Your task to perform on an android device: open sync settings in chrome Image 0: 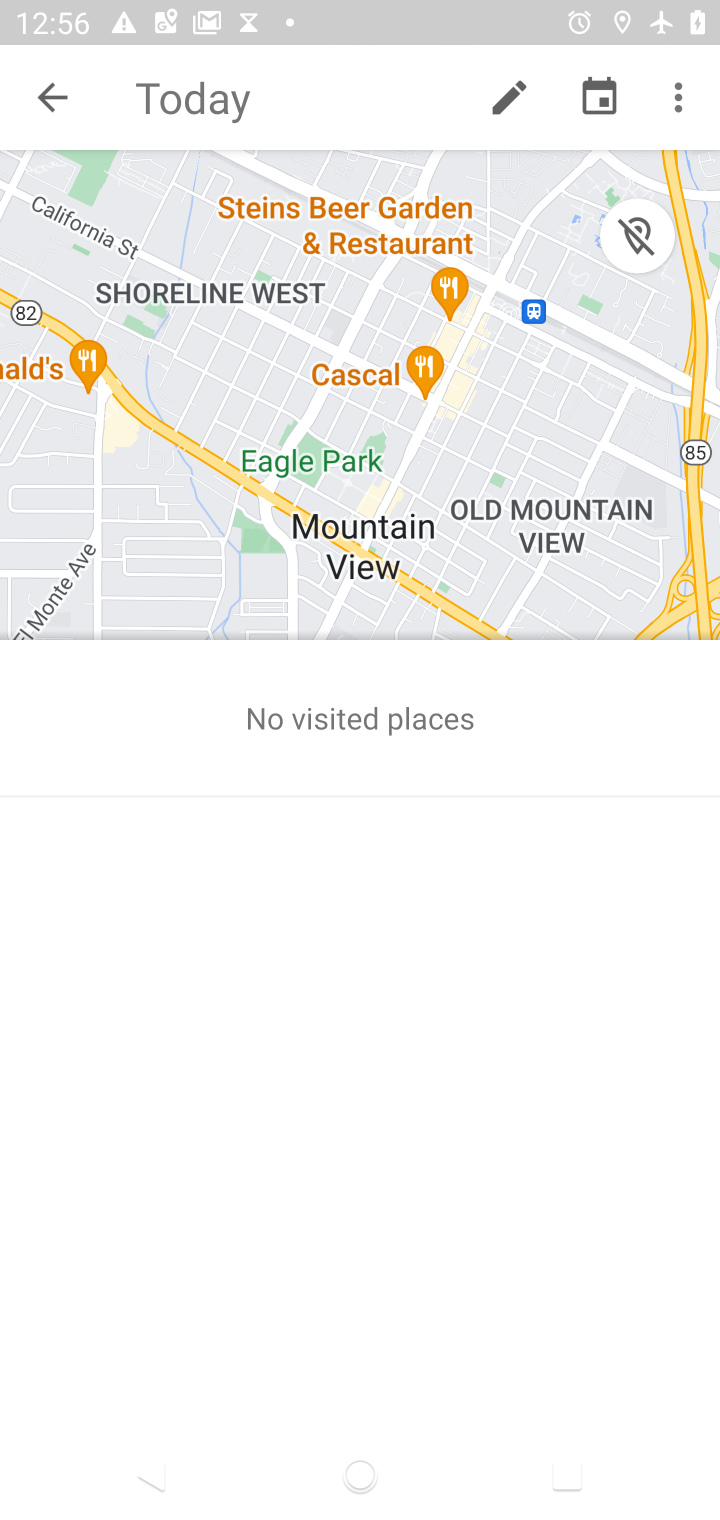
Step 0: press home button
Your task to perform on an android device: open sync settings in chrome Image 1: 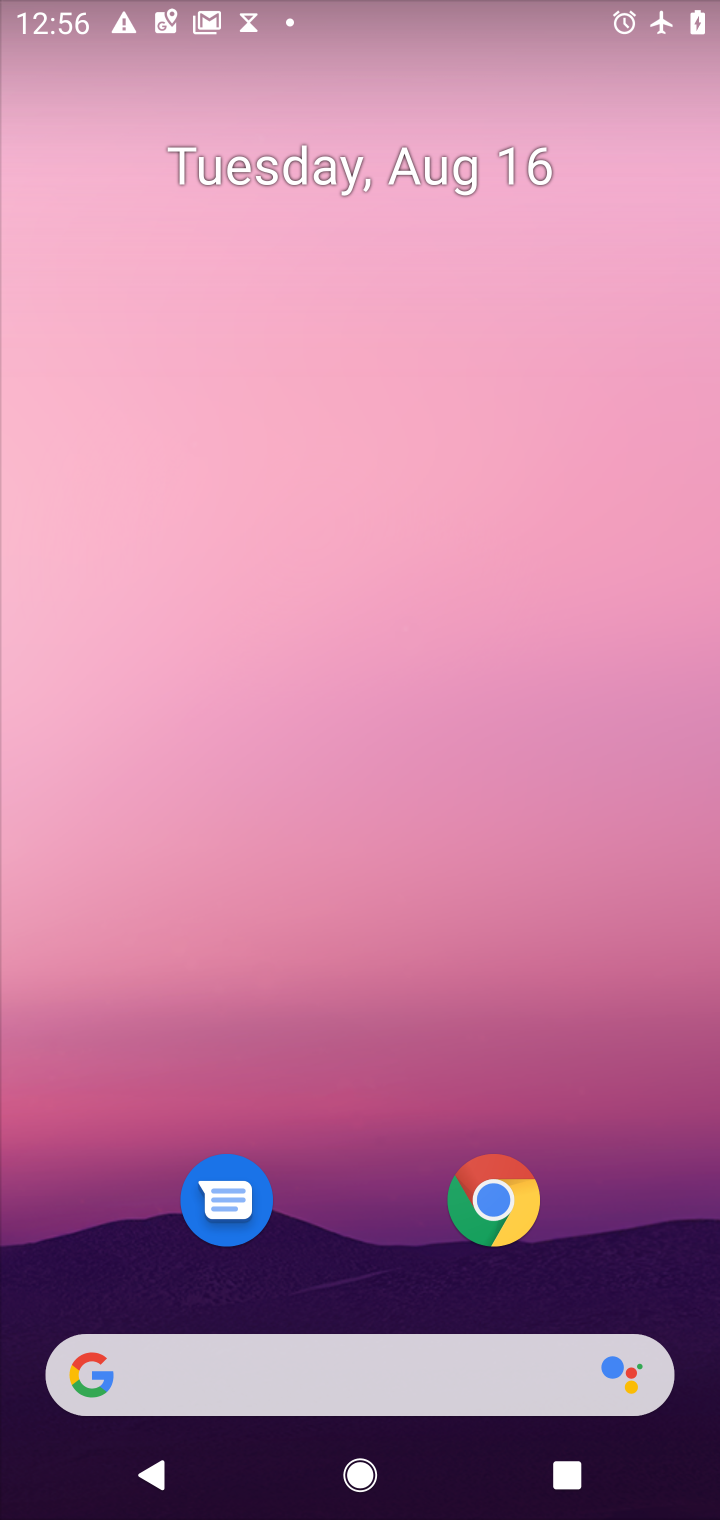
Step 1: click (471, 1216)
Your task to perform on an android device: open sync settings in chrome Image 2: 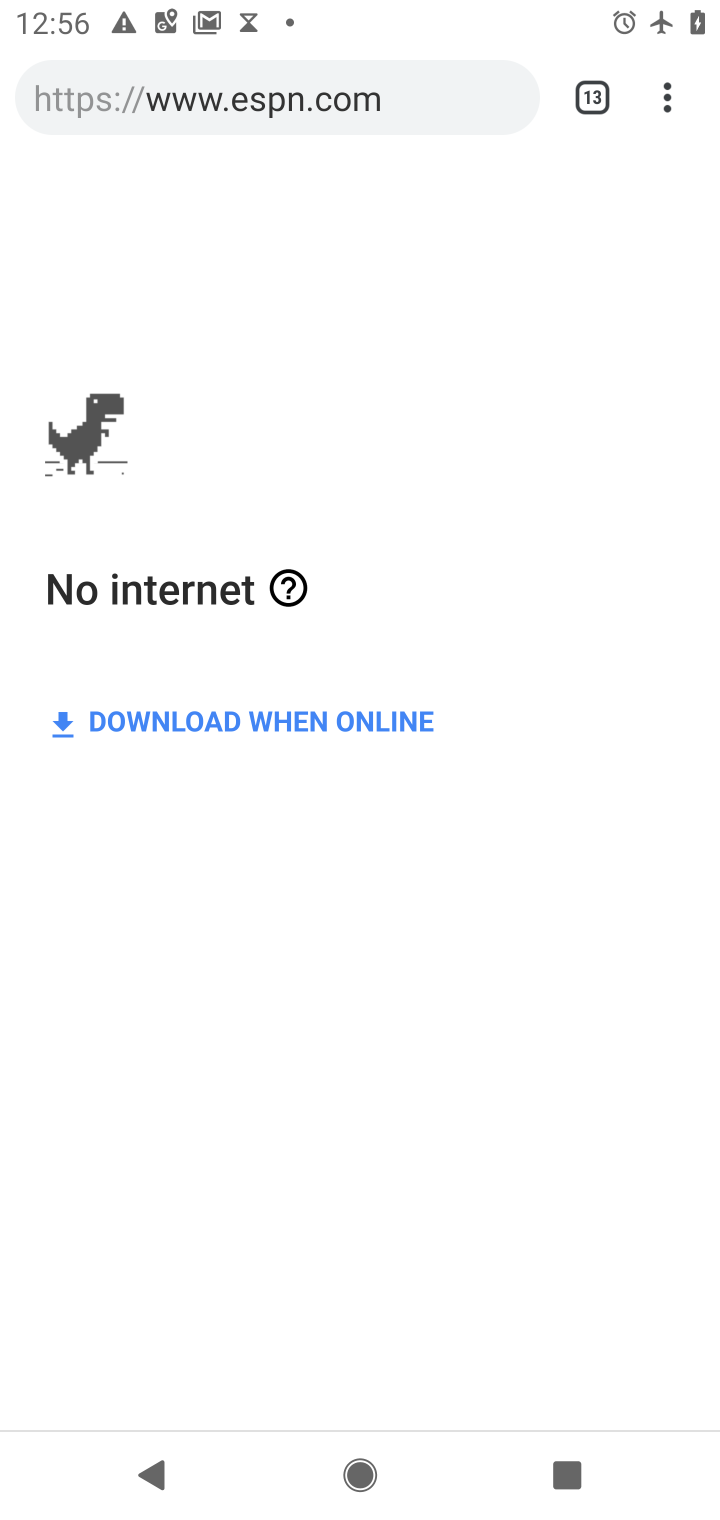
Step 2: click (670, 88)
Your task to perform on an android device: open sync settings in chrome Image 3: 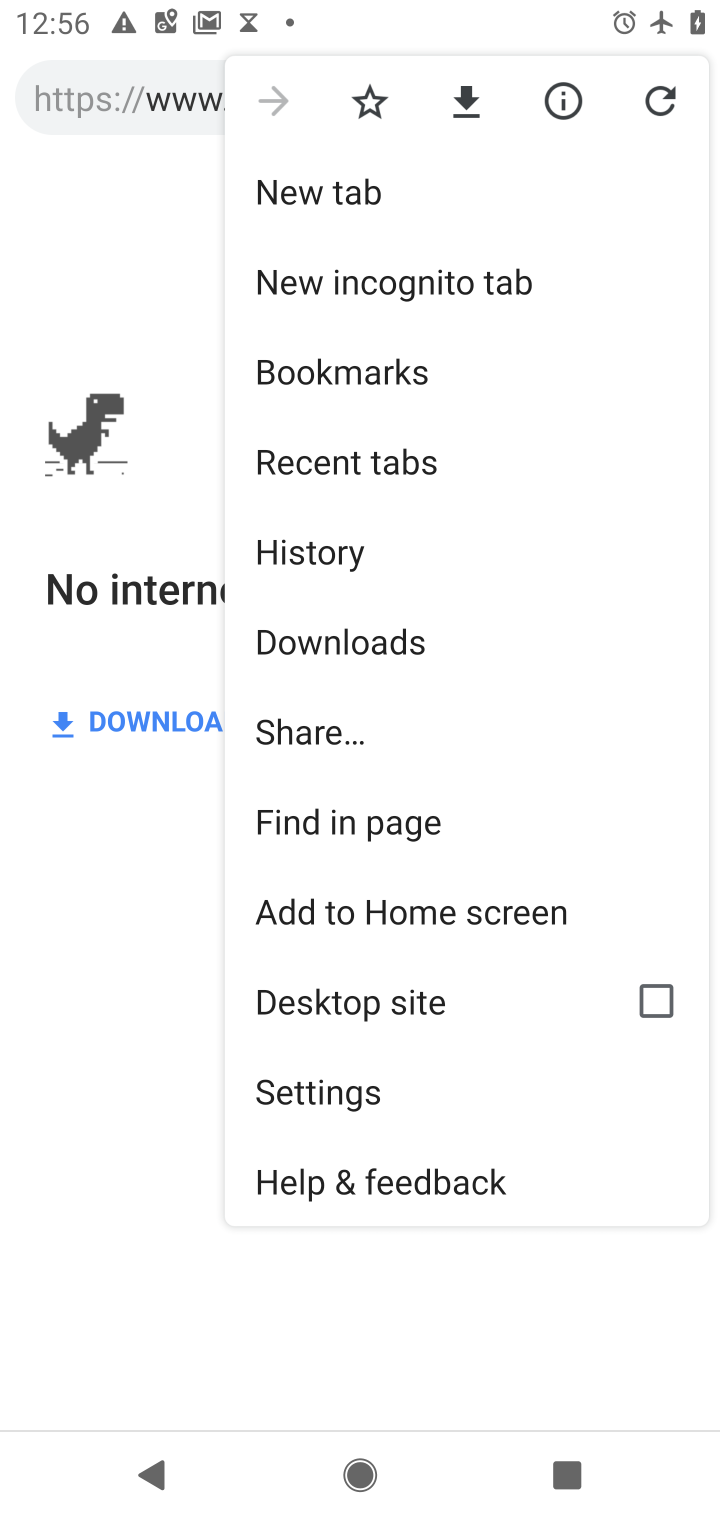
Step 3: click (333, 1098)
Your task to perform on an android device: open sync settings in chrome Image 4: 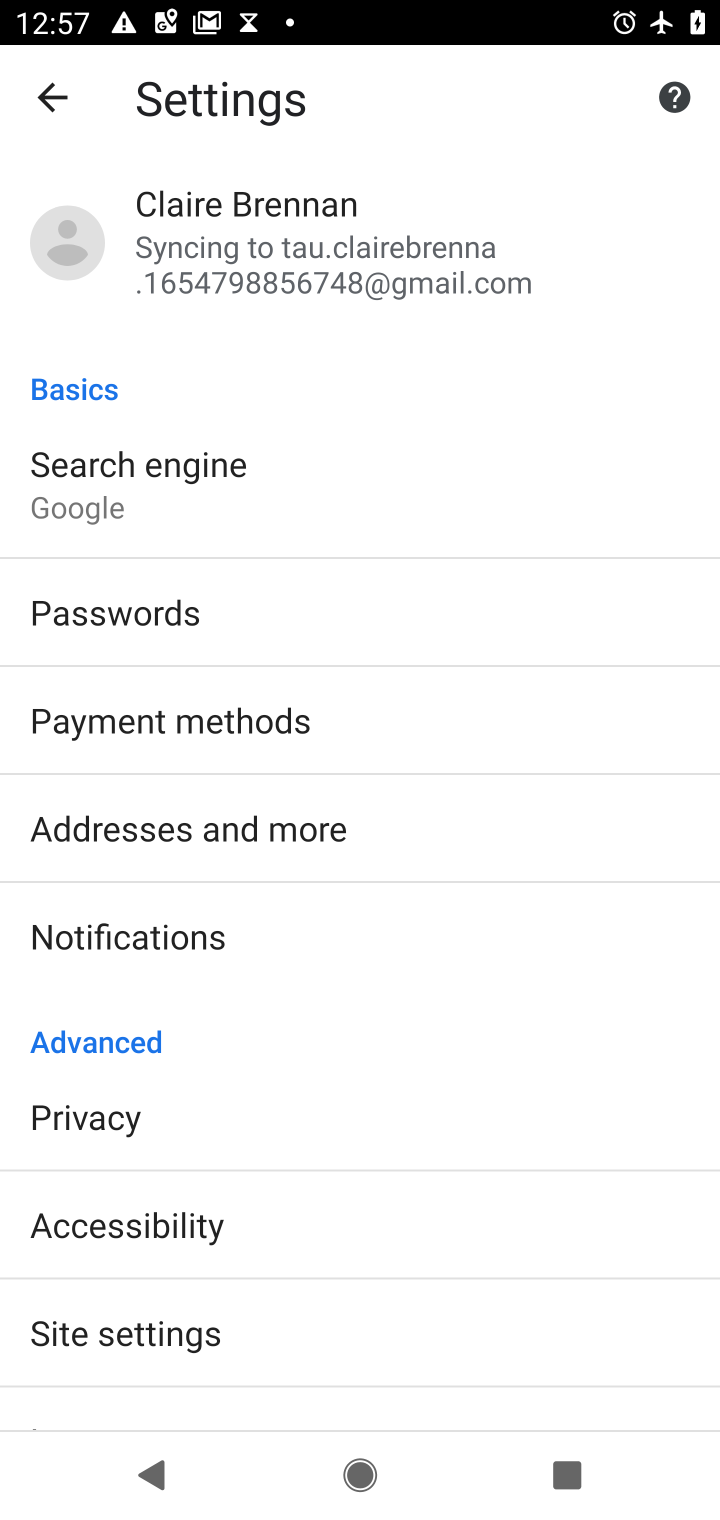
Step 4: drag from (247, 1220) to (238, 577)
Your task to perform on an android device: open sync settings in chrome Image 5: 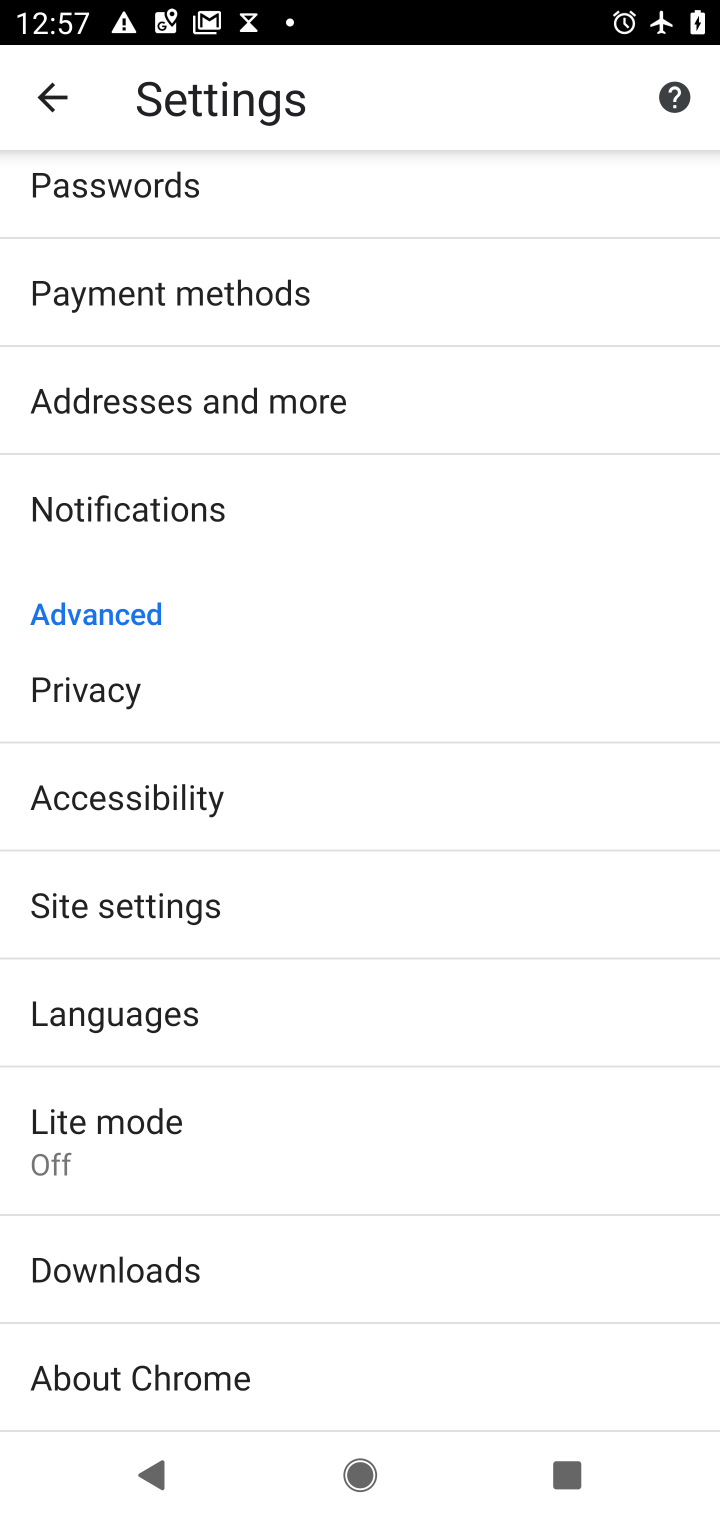
Step 5: drag from (366, 1180) to (380, 641)
Your task to perform on an android device: open sync settings in chrome Image 6: 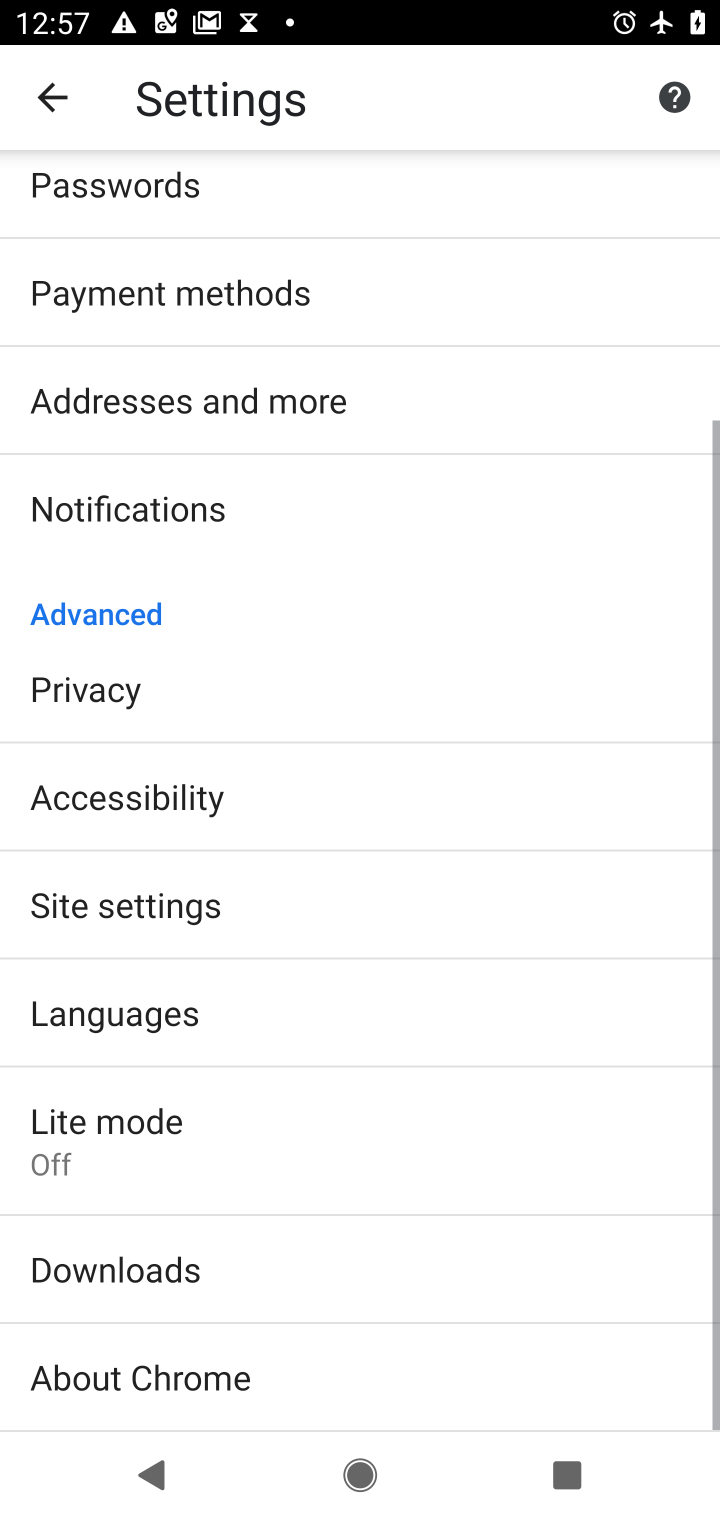
Step 6: drag from (364, 445) to (379, 1044)
Your task to perform on an android device: open sync settings in chrome Image 7: 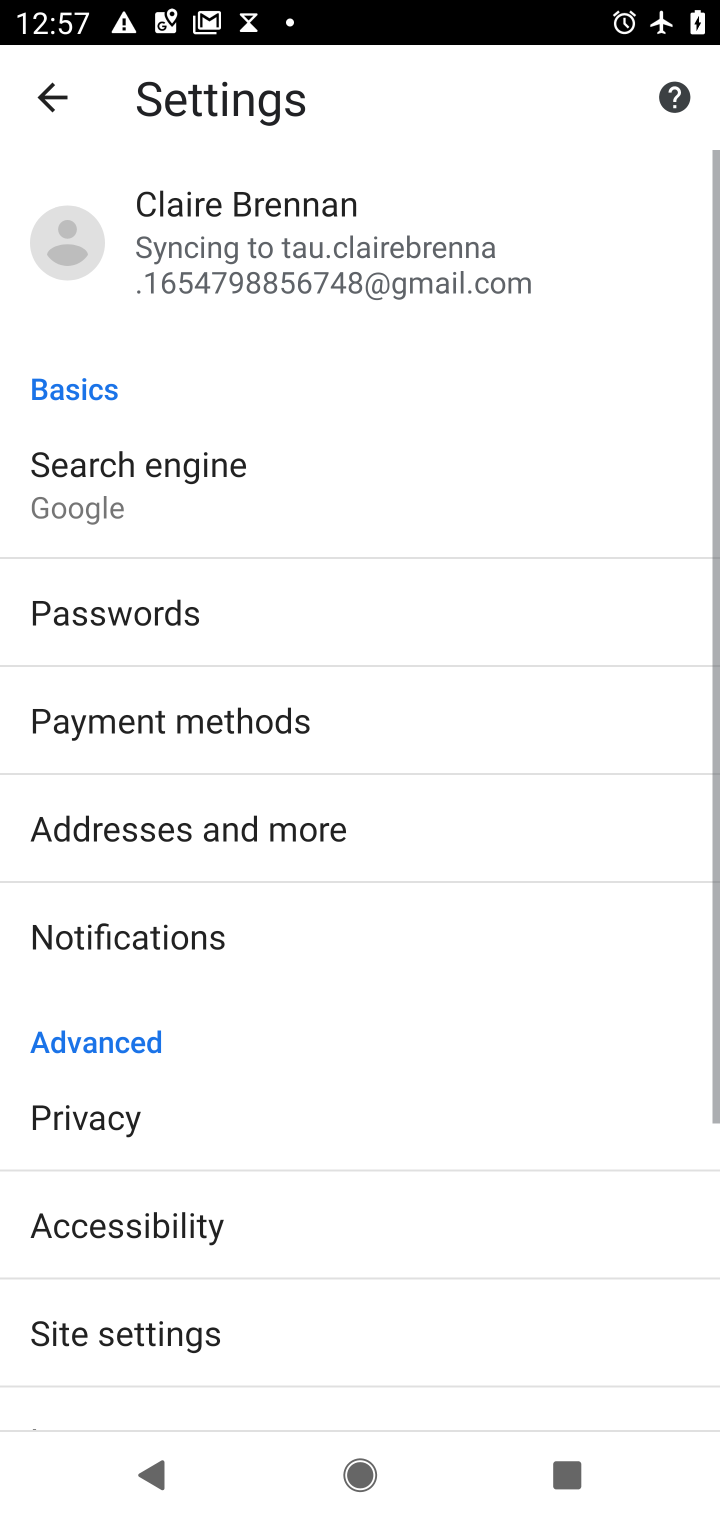
Step 7: drag from (280, 1184) to (307, 522)
Your task to perform on an android device: open sync settings in chrome Image 8: 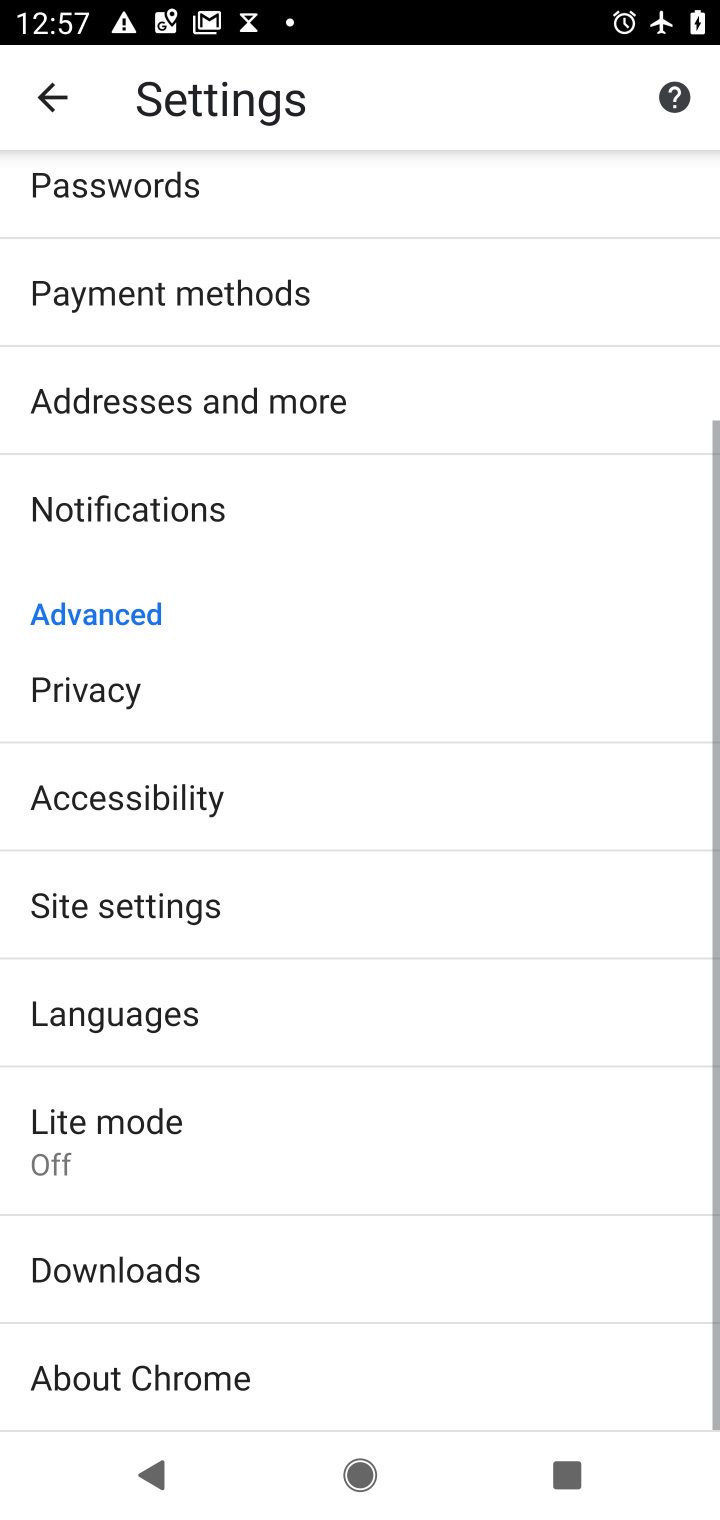
Step 8: drag from (310, 527) to (310, 1255)
Your task to perform on an android device: open sync settings in chrome Image 9: 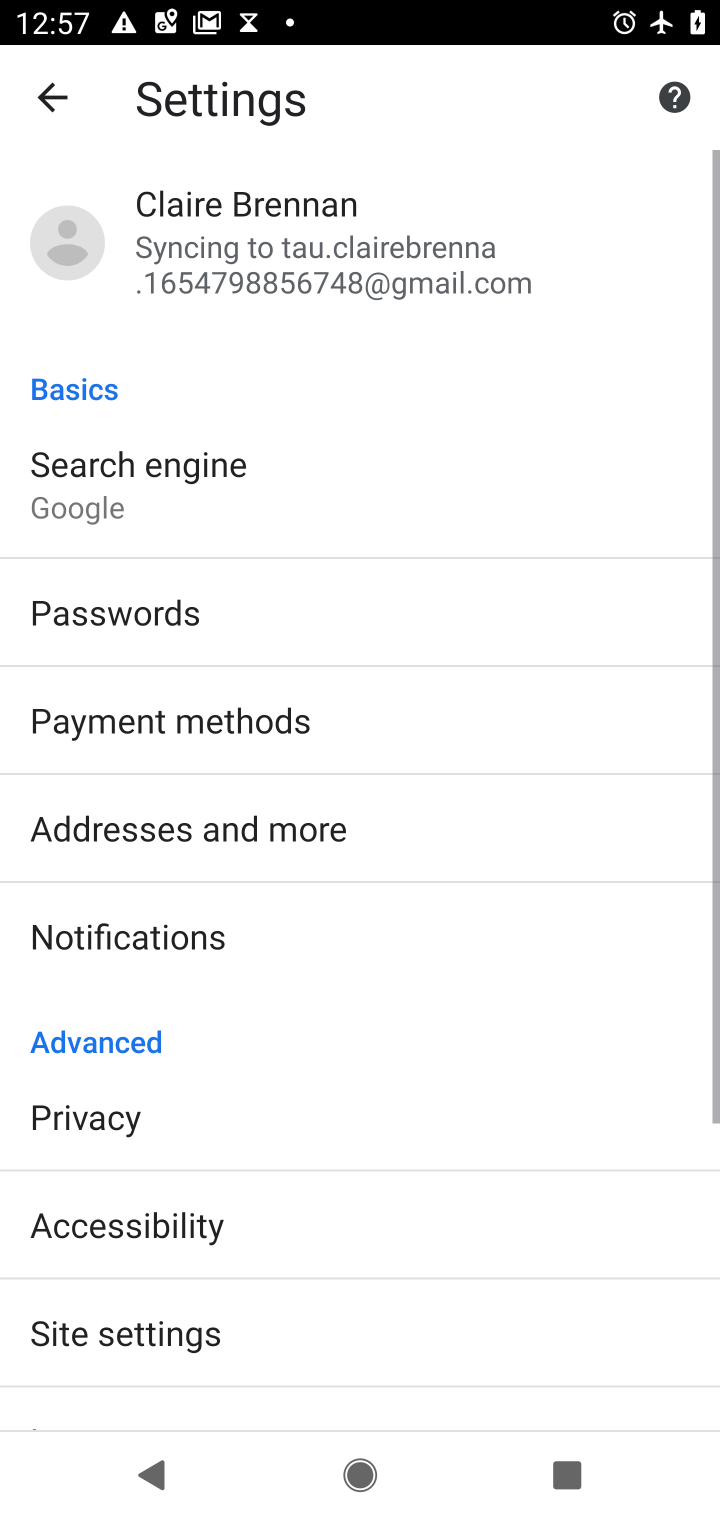
Step 9: click (314, 222)
Your task to perform on an android device: open sync settings in chrome Image 10: 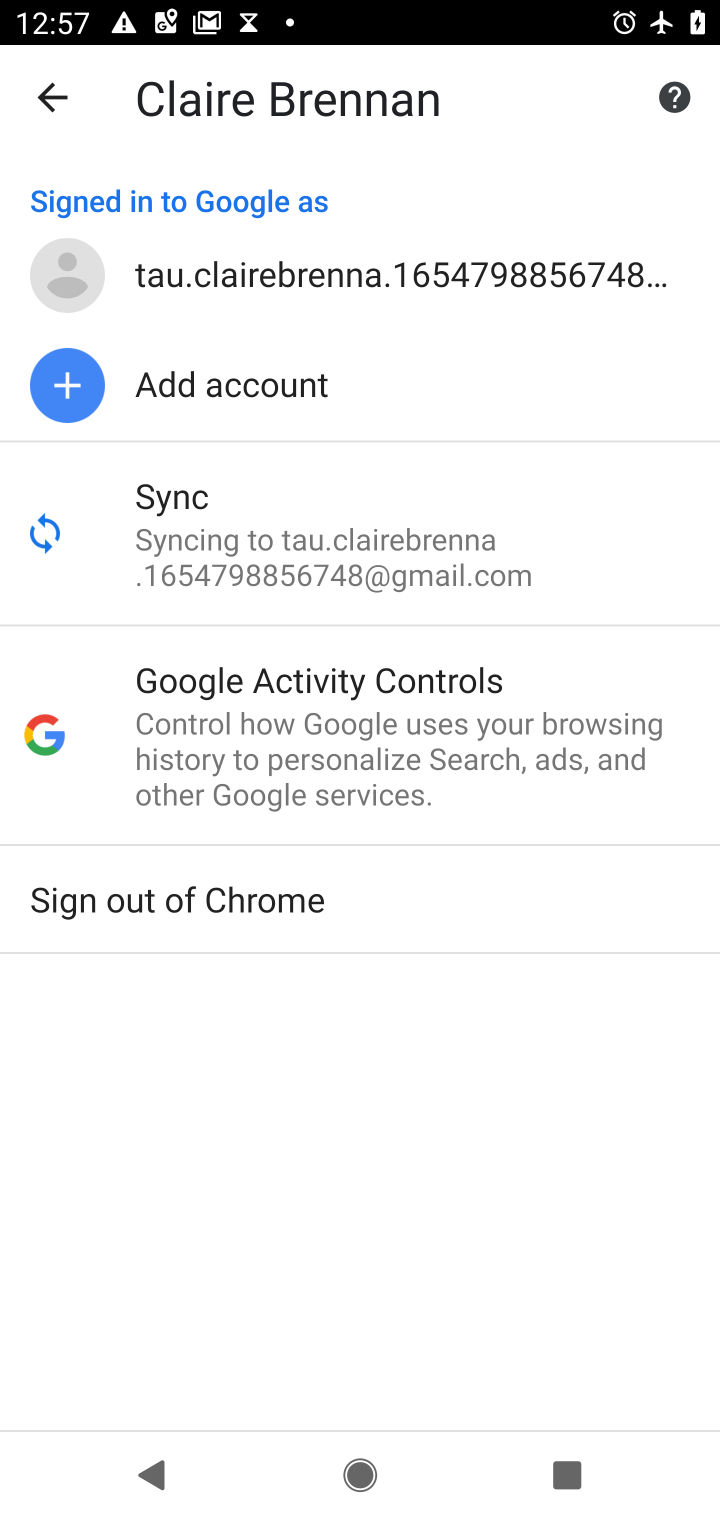
Step 10: click (336, 543)
Your task to perform on an android device: open sync settings in chrome Image 11: 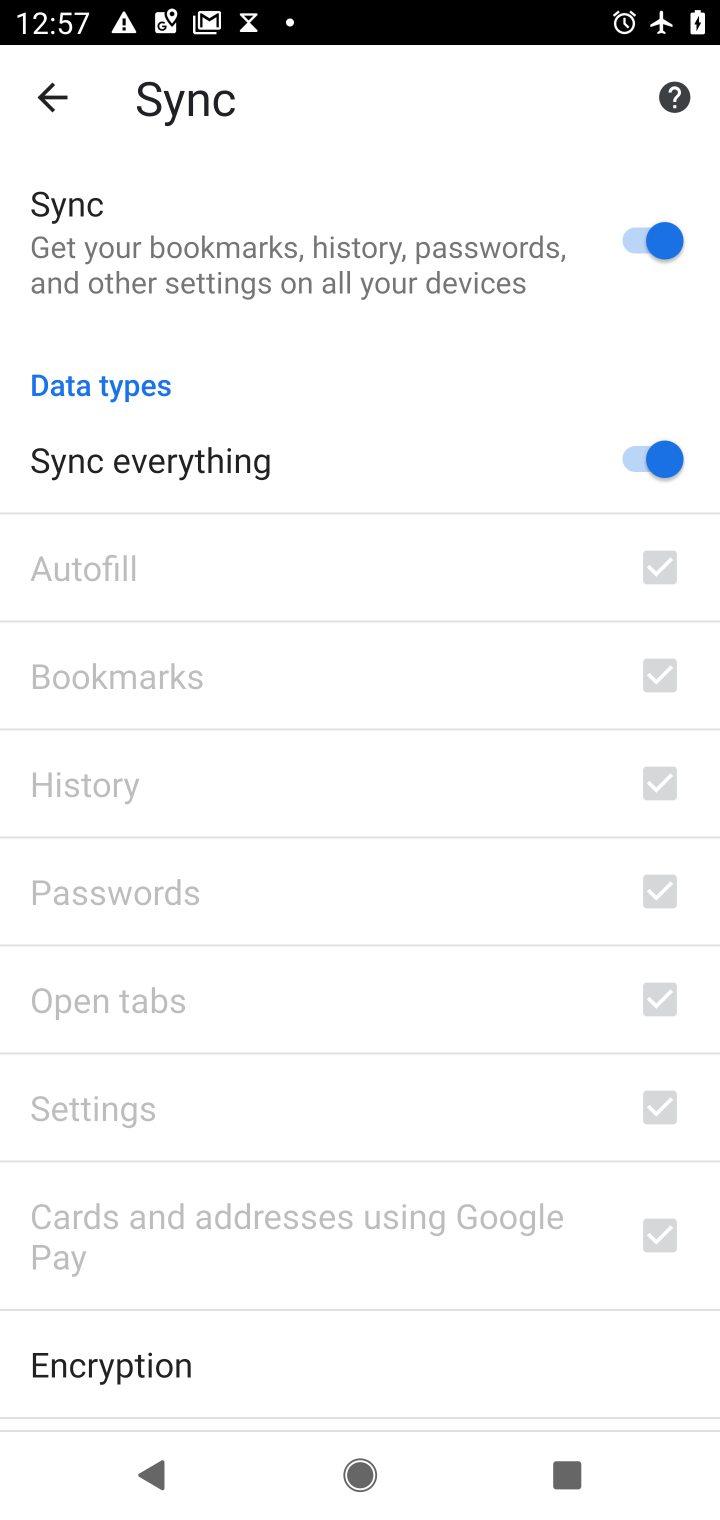
Step 11: task complete